Your task to perform on an android device: Open ESPN.com Image 0: 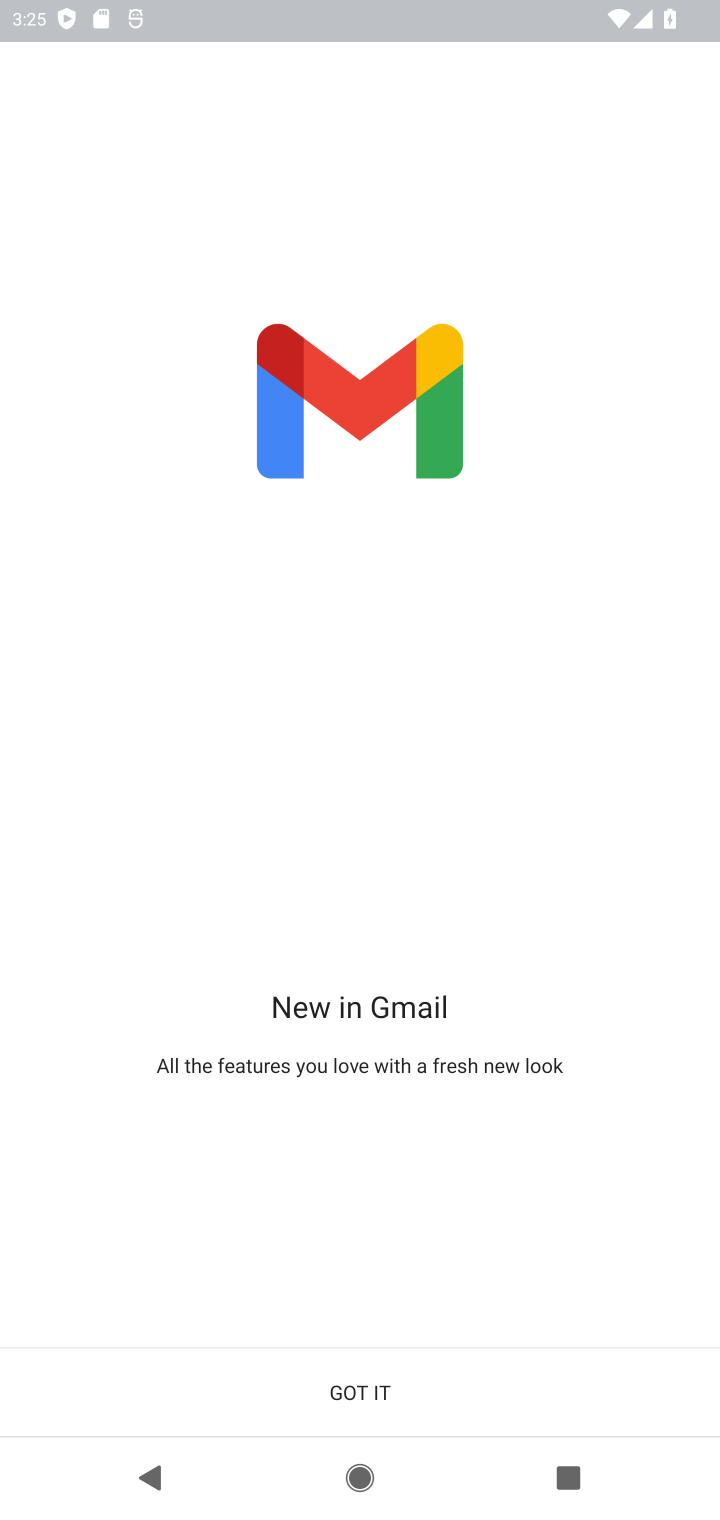
Step 0: press home button
Your task to perform on an android device: Open ESPN.com Image 1: 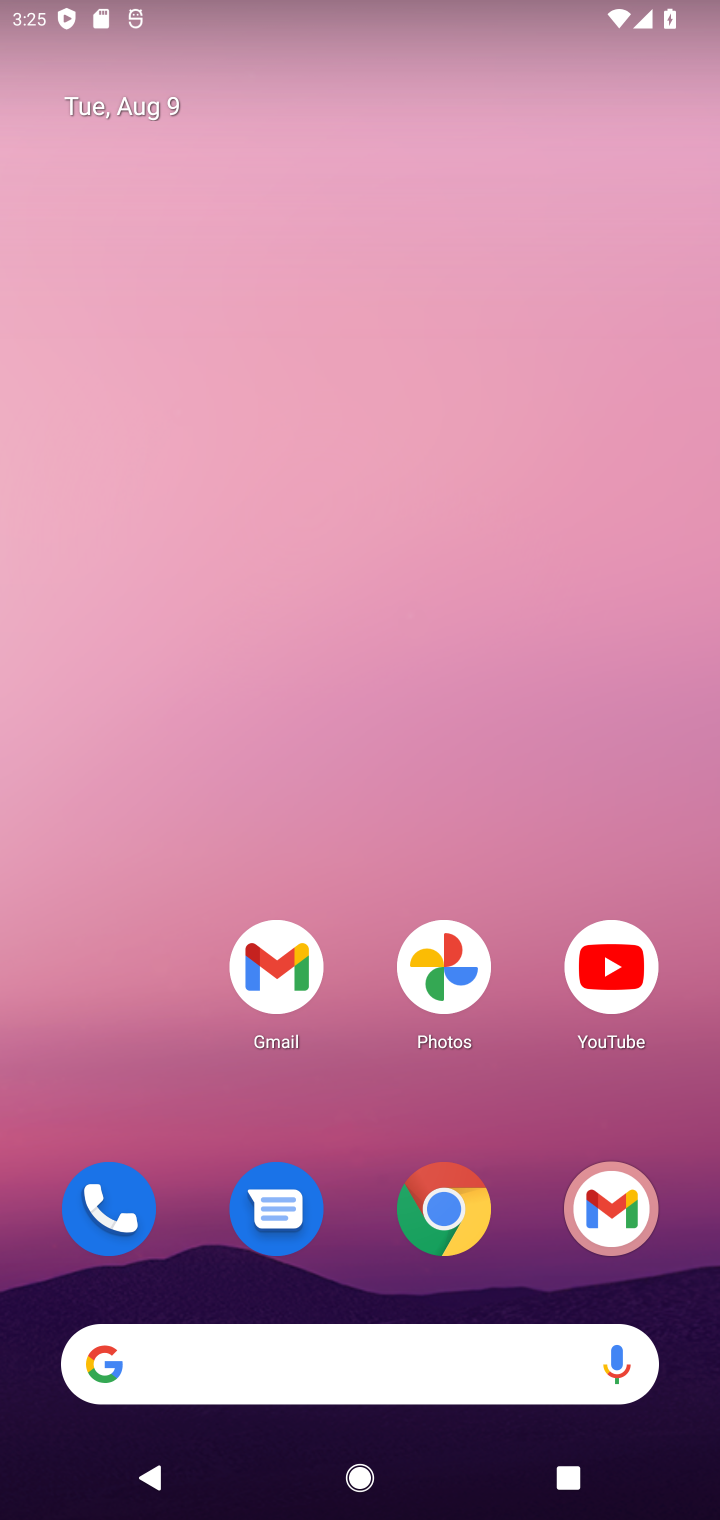
Step 1: click (447, 1219)
Your task to perform on an android device: Open ESPN.com Image 2: 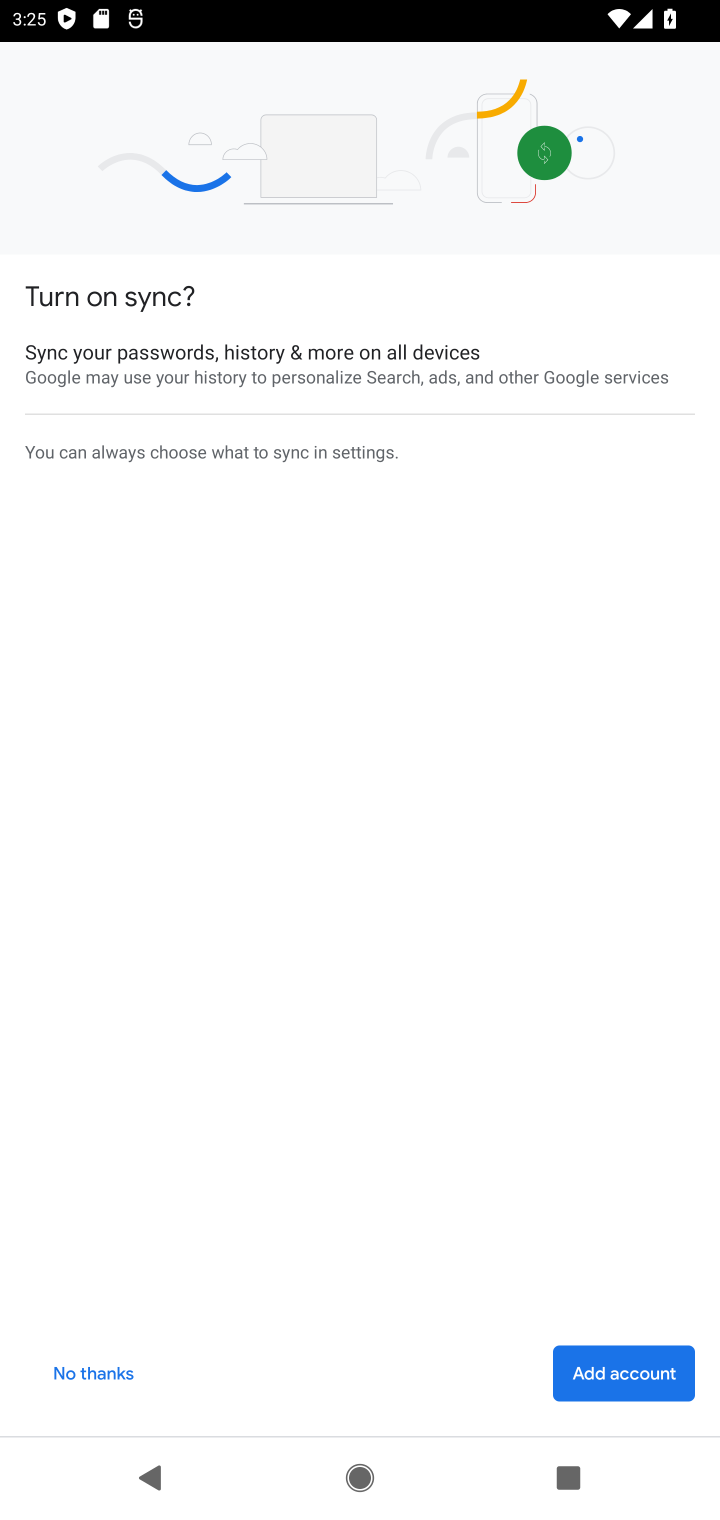
Step 2: click (98, 1370)
Your task to perform on an android device: Open ESPN.com Image 3: 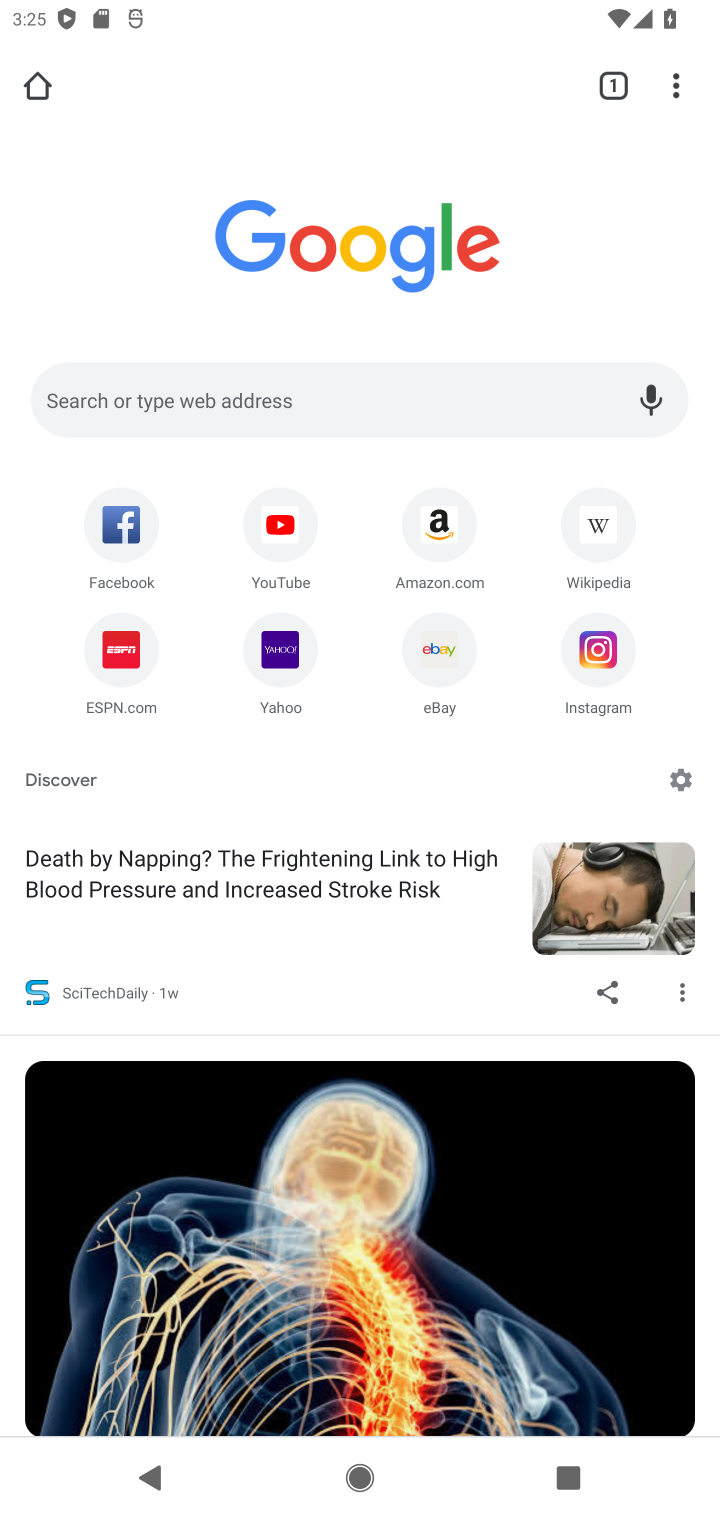
Step 3: click (113, 650)
Your task to perform on an android device: Open ESPN.com Image 4: 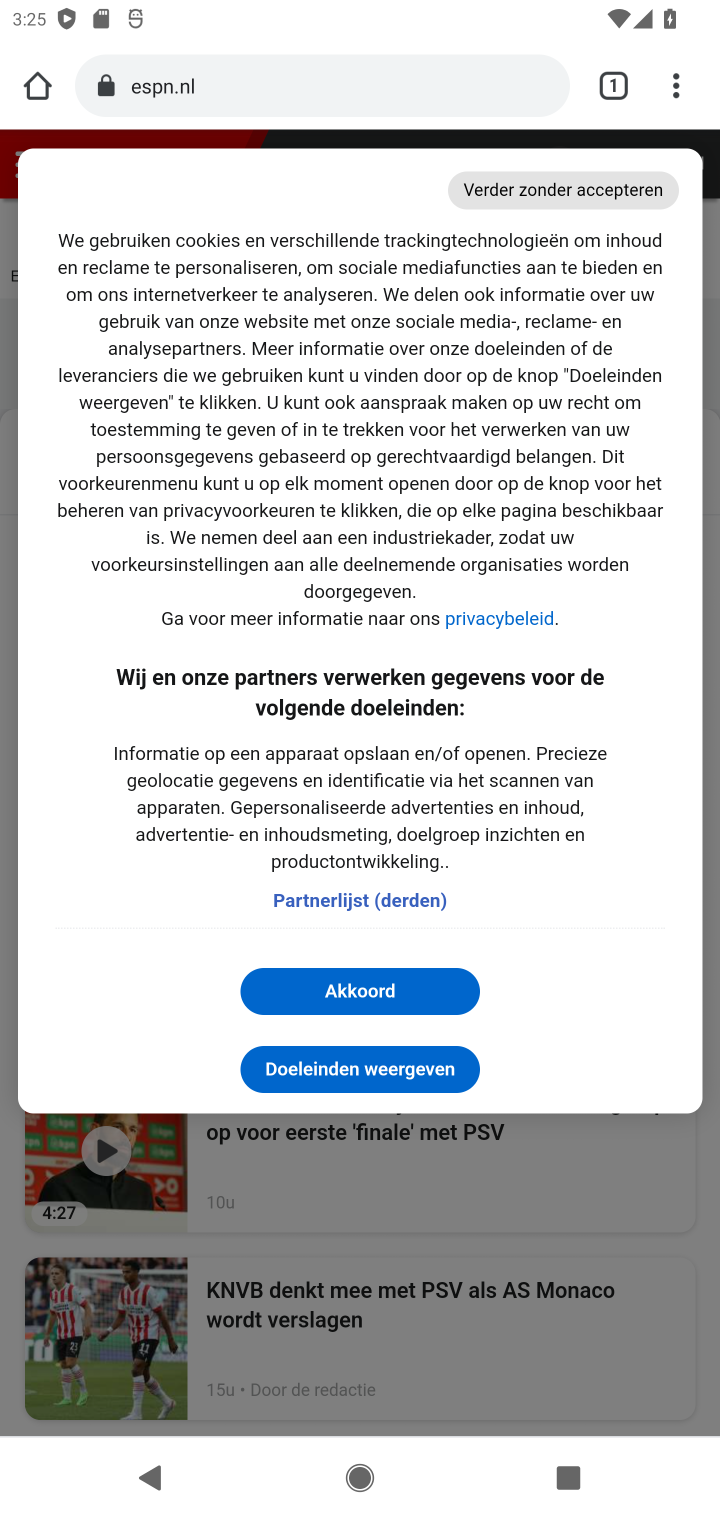
Step 4: click (399, 994)
Your task to perform on an android device: Open ESPN.com Image 5: 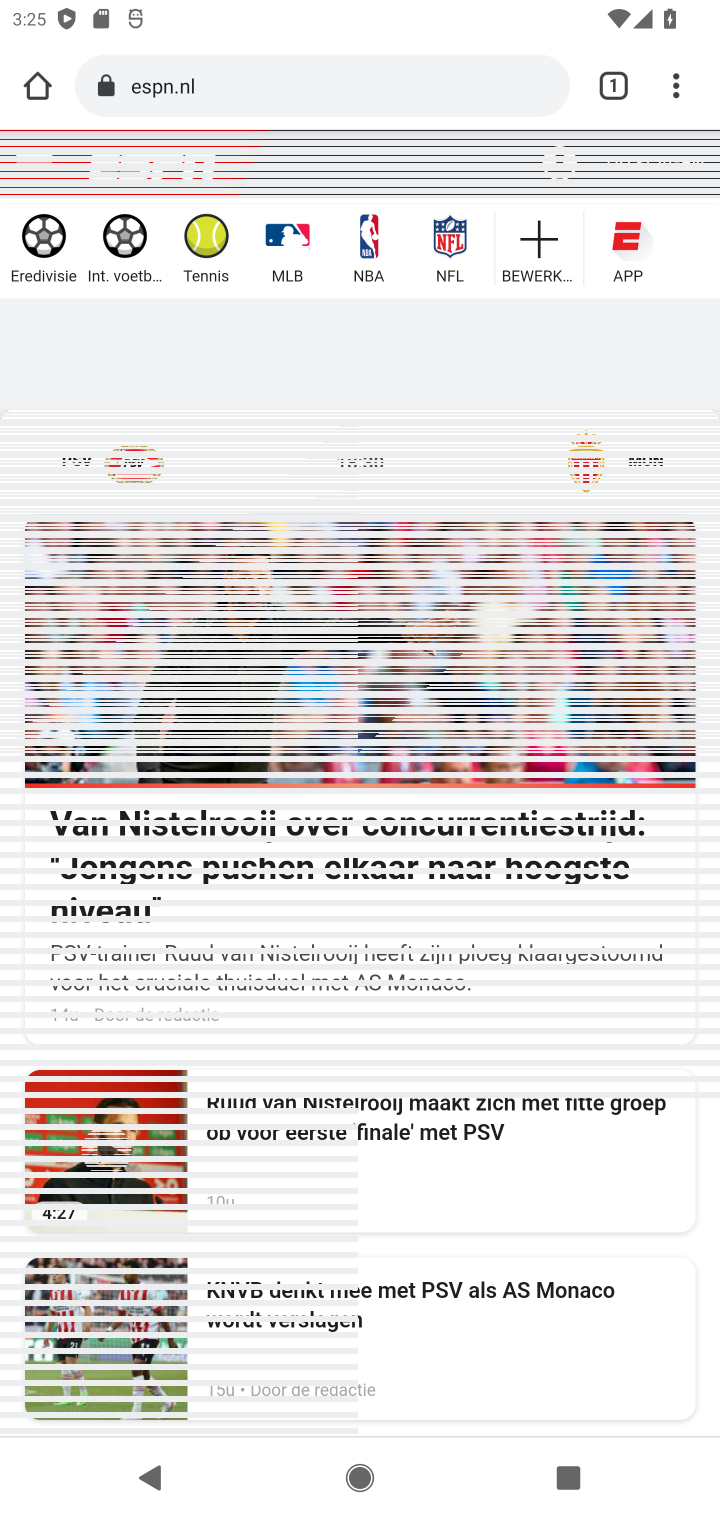
Step 5: task complete